Your task to perform on an android device: Open location settings Image 0: 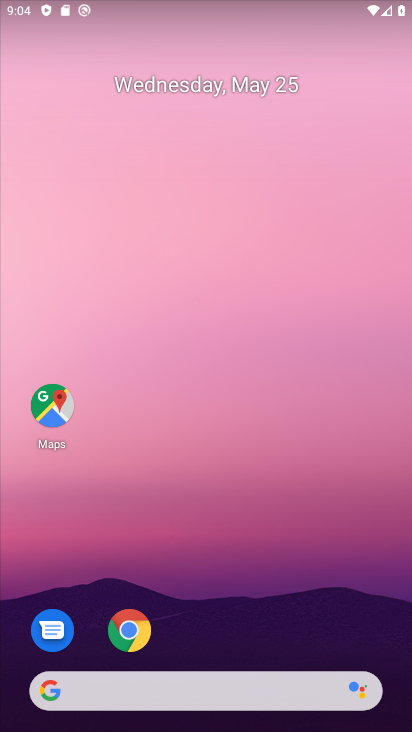
Step 0: drag from (193, 654) to (257, 0)
Your task to perform on an android device: Open location settings Image 1: 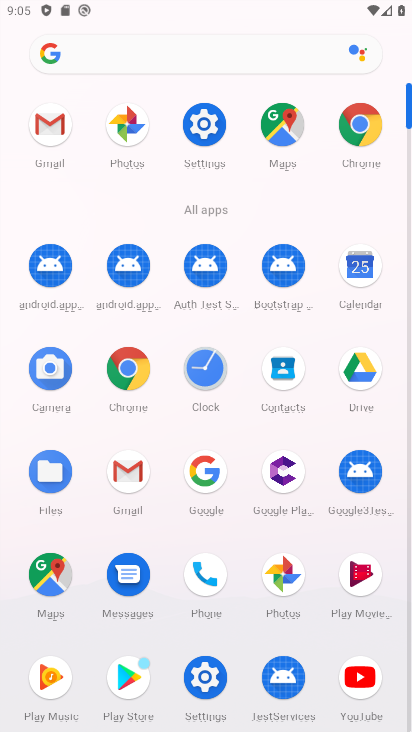
Step 1: click (217, 124)
Your task to perform on an android device: Open location settings Image 2: 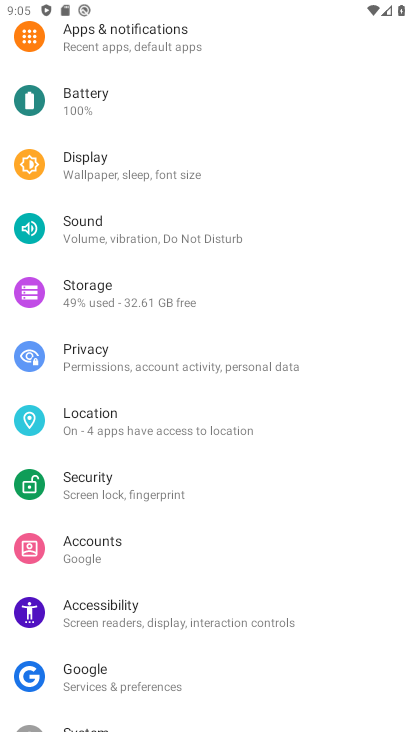
Step 2: click (97, 428)
Your task to perform on an android device: Open location settings Image 3: 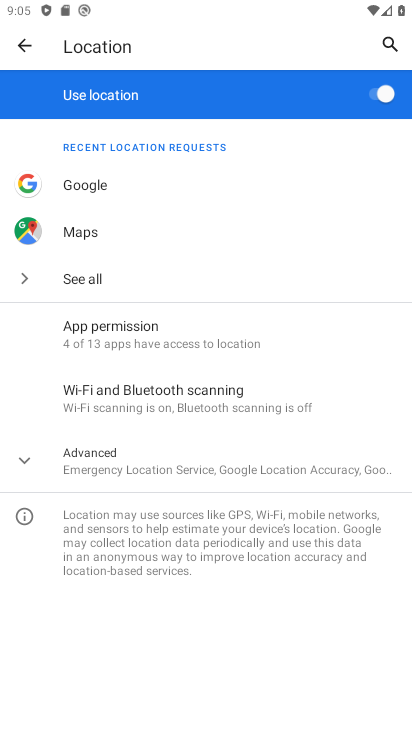
Step 3: task complete